Your task to perform on an android device: toggle pop-ups in chrome Image 0: 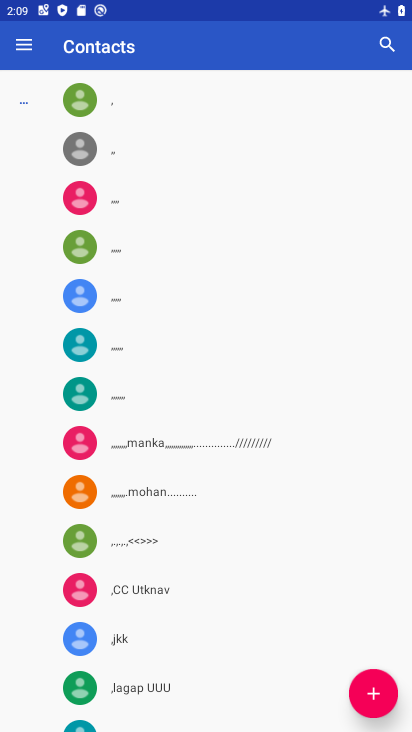
Step 0: press back button
Your task to perform on an android device: toggle pop-ups in chrome Image 1: 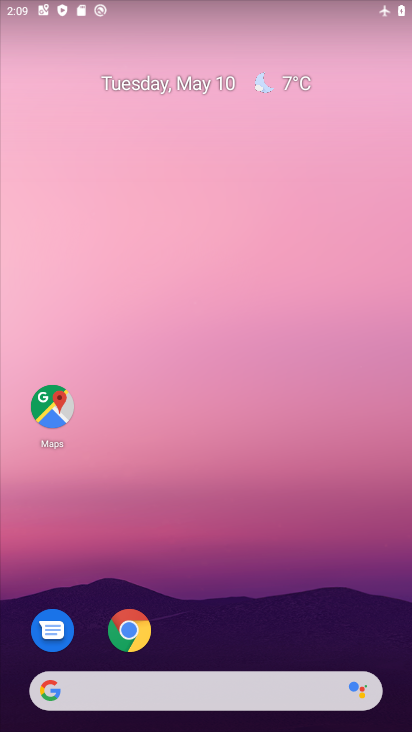
Step 1: drag from (265, 591) to (217, 30)
Your task to perform on an android device: toggle pop-ups in chrome Image 2: 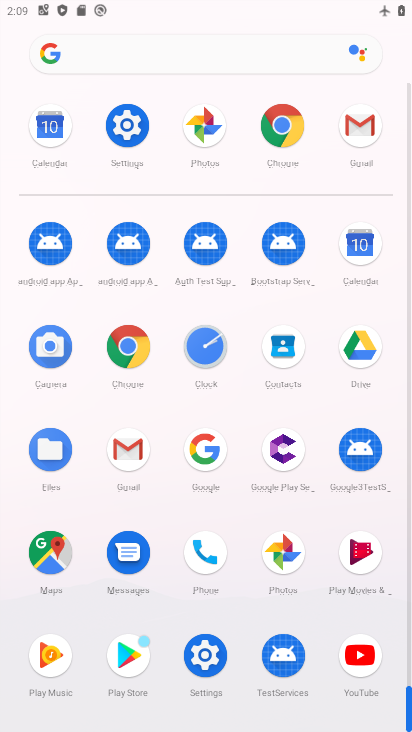
Step 2: click (123, 345)
Your task to perform on an android device: toggle pop-ups in chrome Image 3: 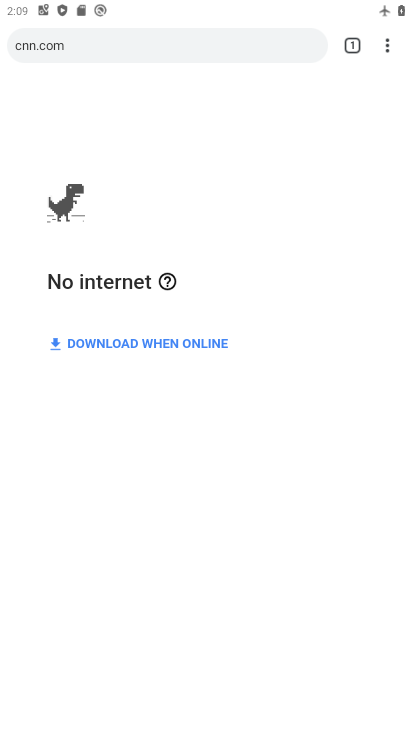
Step 3: drag from (385, 51) to (240, 514)
Your task to perform on an android device: toggle pop-ups in chrome Image 4: 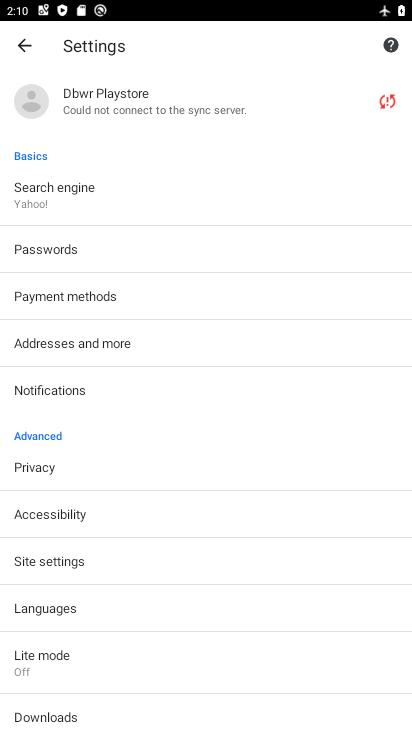
Step 4: click (82, 559)
Your task to perform on an android device: toggle pop-ups in chrome Image 5: 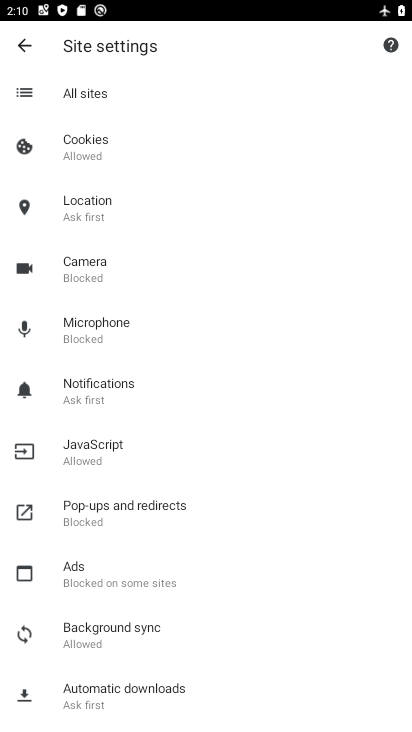
Step 5: click (97, 503)
Your task to perform on an android device: toggle pop-ups in chrome Image 6: 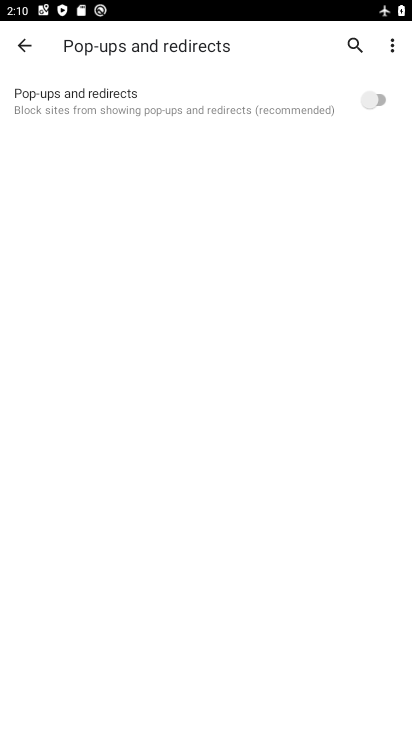
Step 6: click (374, 99)
Your task to perform on an android device: toggle pop-ups in chrome Image 7: 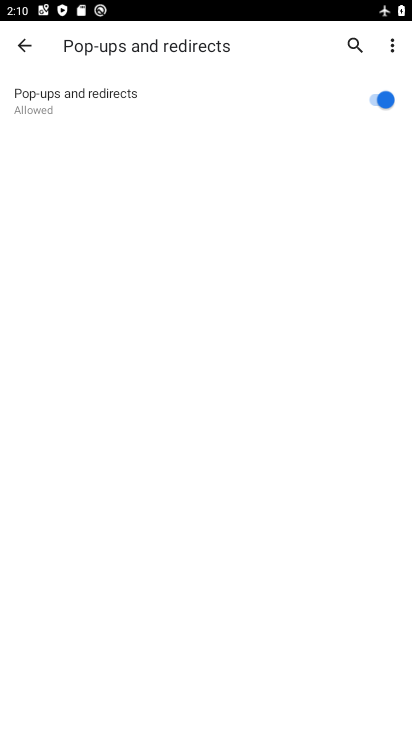
Step 7: task complete